Your task to perform on an android device: Is it going to rain tomorrow? Image 0: 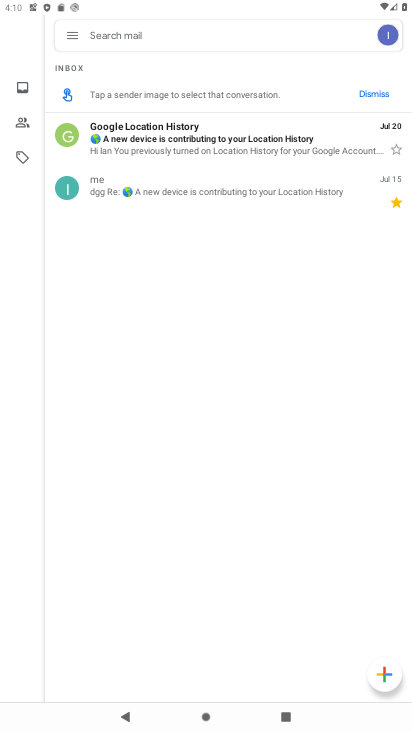
Step 0: press home button
Your task to perform on an android device: Is it going to rain tomorrow? Image 1: 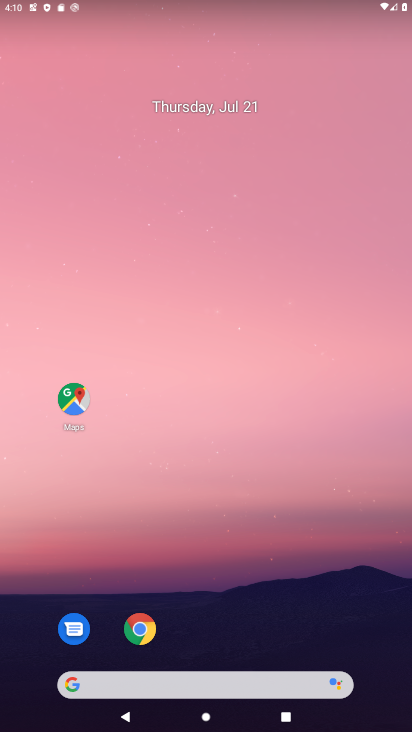
Step 1: drag from (255, 662) to (311, 162)
Your task to perform on an android device: Is it going to rain tomorrow? Image 2: 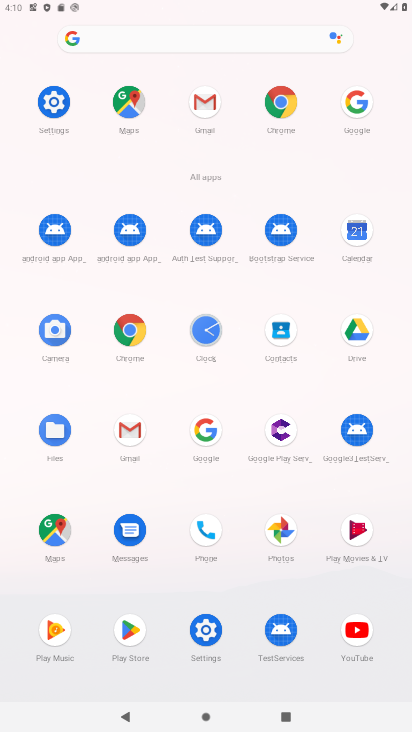
Step 2: click (206, 433)
Your task to perform on an android device: Is it going to rain tomorrow? Image 3: 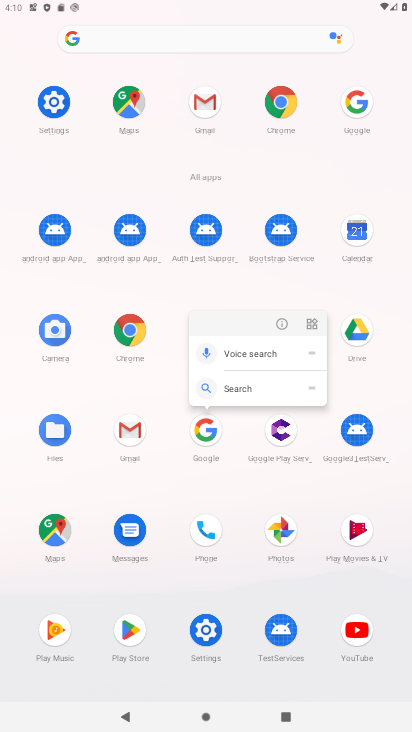
Step 3: click (199, 436)
Your task to perform on an android device: Is it going to rain tomorrow? Image 4: 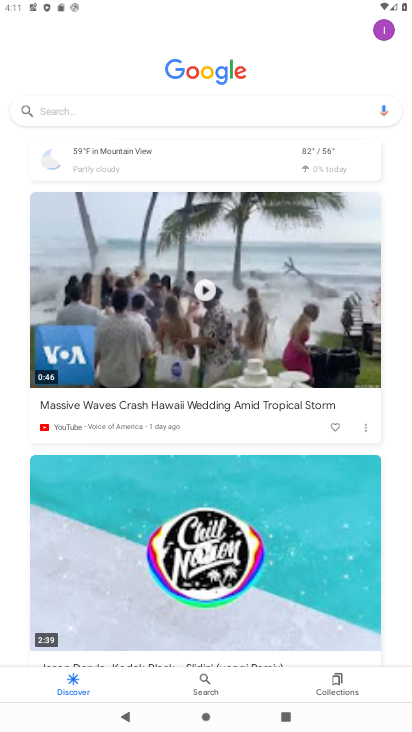
Step 4: click (110, 164)
Your task to perform on an android device: Is it going to rain tomorrow? Image 5: 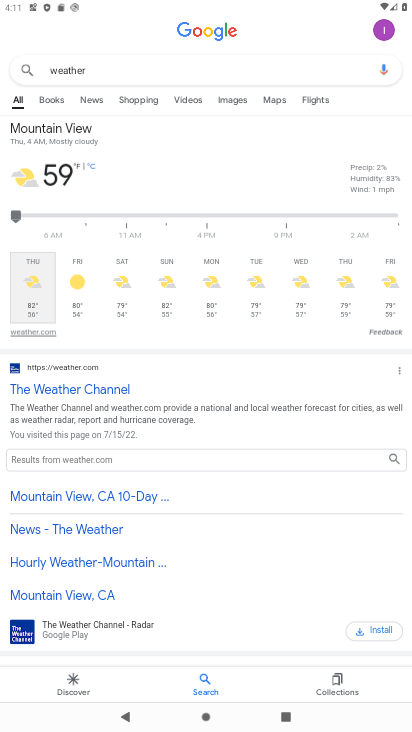
Step 5: task complete